Your task to perform on an android device: turn off smart reply in the gmail app Image 0: 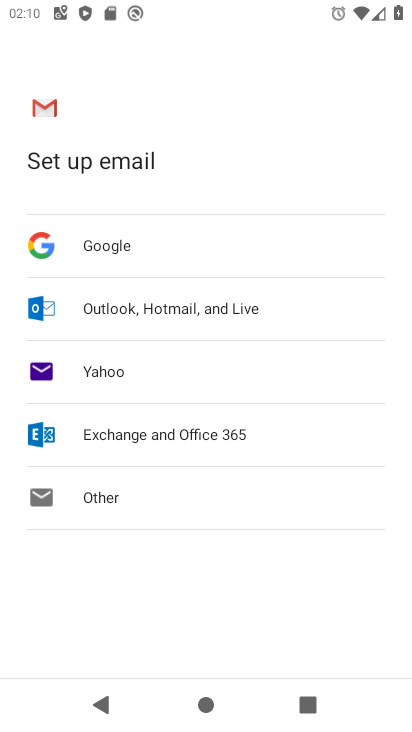
Step 0: press home button
Your task to perform on an android device: turn off smart reply in the gmail app Image 1: 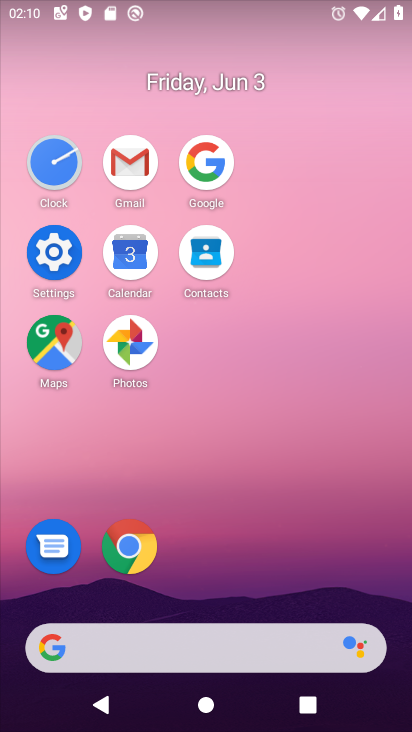
Step 1: click (133, 159)
Your task to perform on an android device: turn off smart reply in the gmail app Image 2: 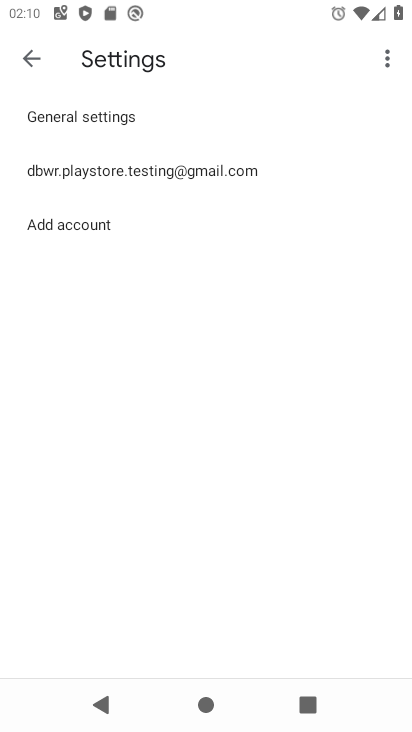
Step 2: click (88, 171)
Your task to perform on an android device: turn off smart reply in the gmail app Image 3: 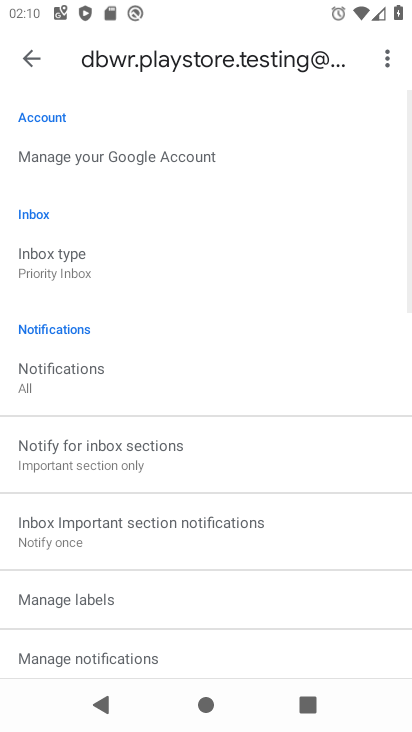
Step 3: task complete